Your task to perform on an android device: Open my contact list Image 0: 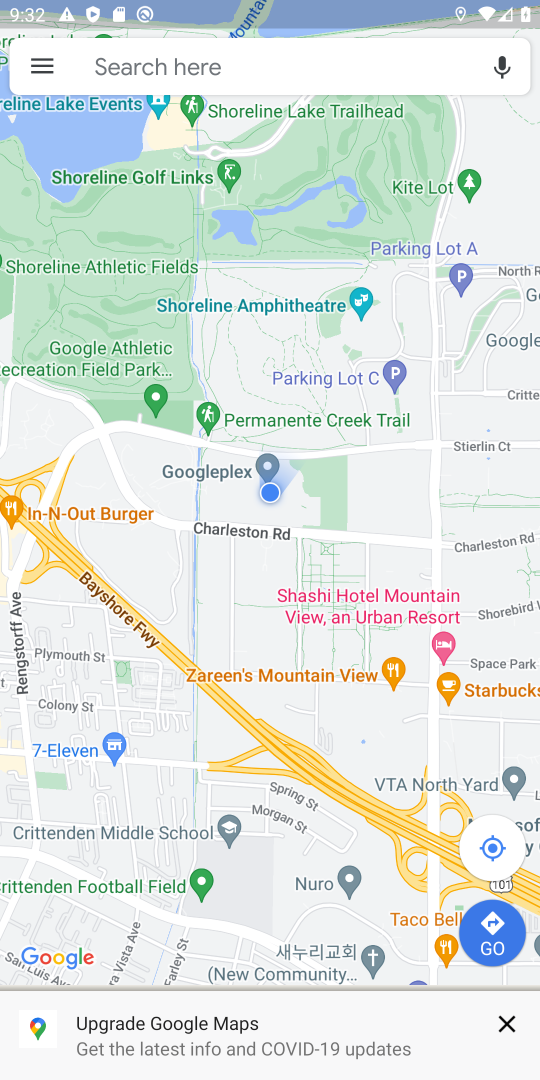
Step 0: press home button
Your task to perform on an android device: Open my contact list Image 1: 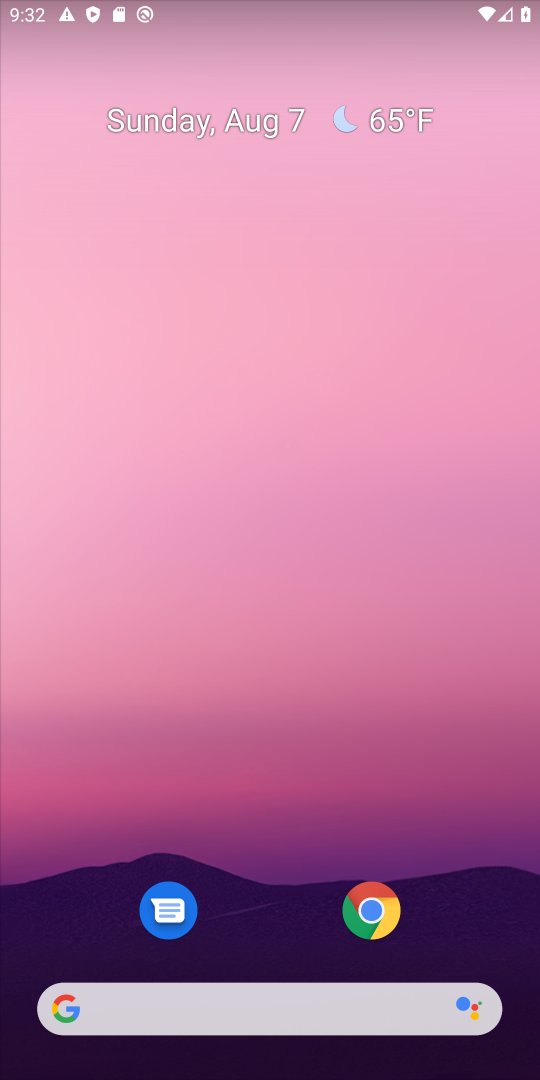
Step 1: drag from (166, 885) to (170, 397)
Your task to perform on an android device: Open my contact list Image 2: 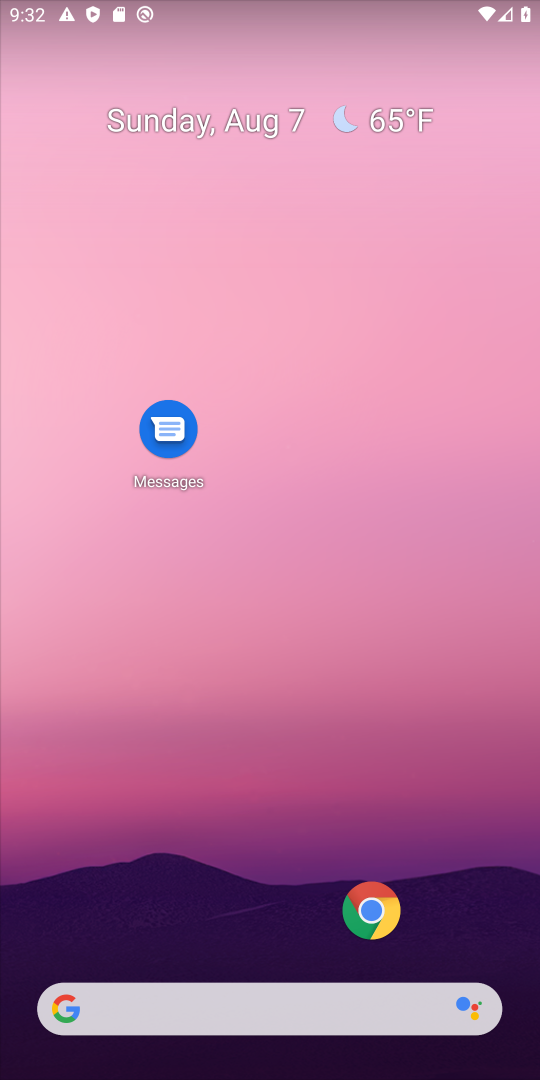
Step 2: drag from (260, 940) to (273, 771)
Your task to perform on an android device: Open my contact list Image 3: 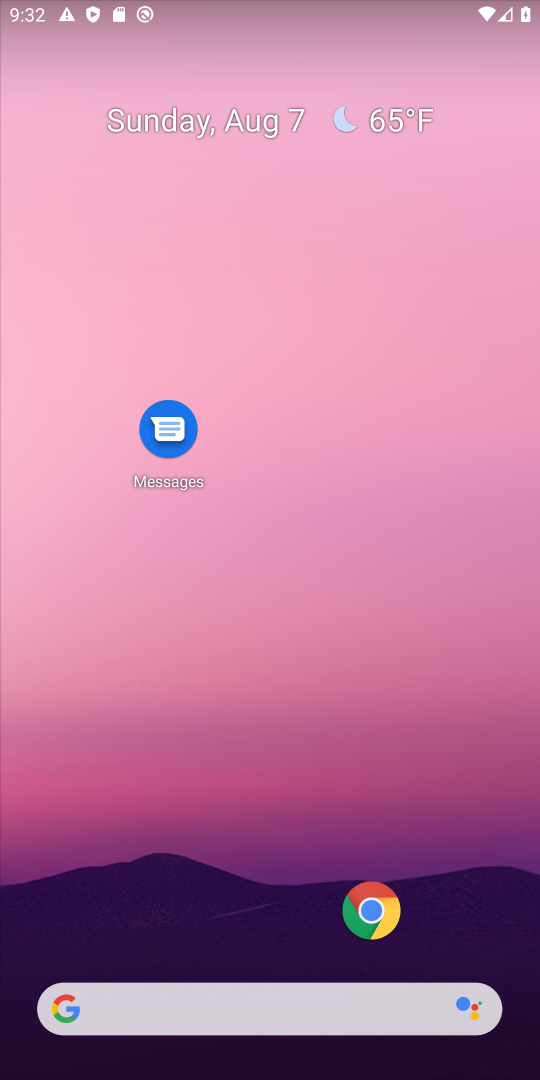
Step 3: drag from (200, 997) to (295, 327)
Your task to perform on an android device: Open my contact list Image 4: 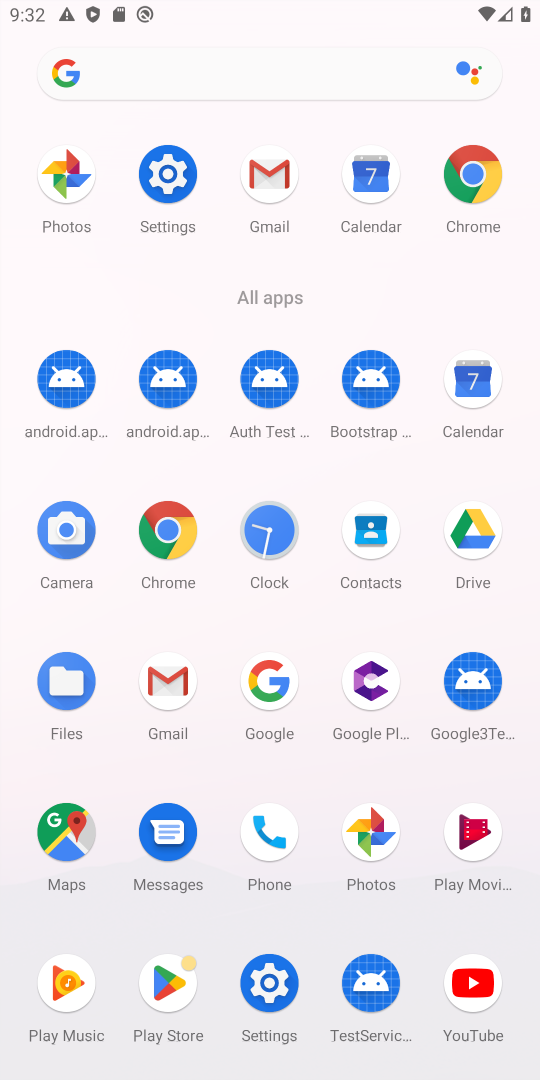
Step 4: click (376, 539)
Your task to perform on an android device: Open my contact list Image 5: 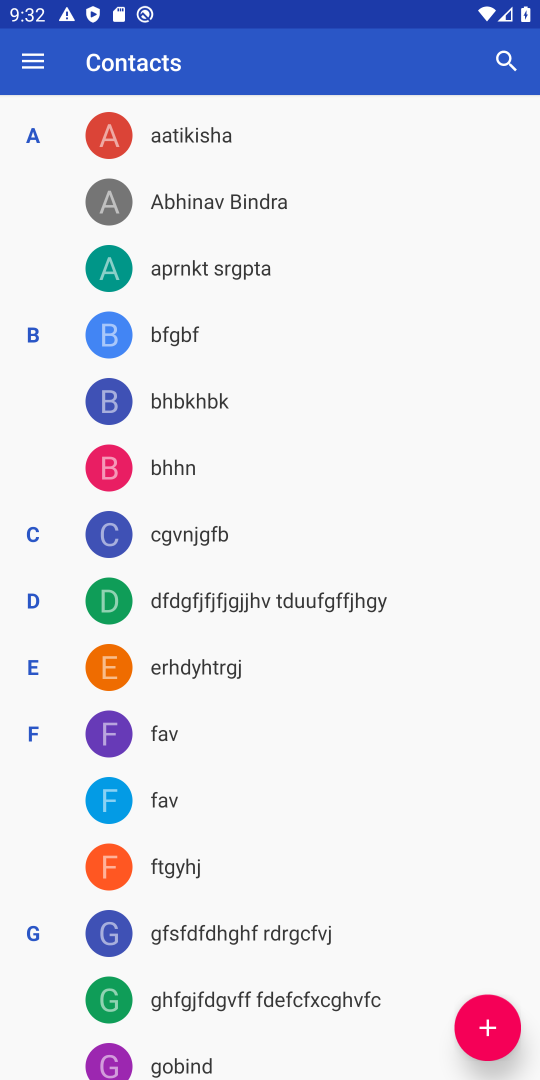
Step 5: task complete